Your task to perform on an android device: change text size in settings app Image 0: 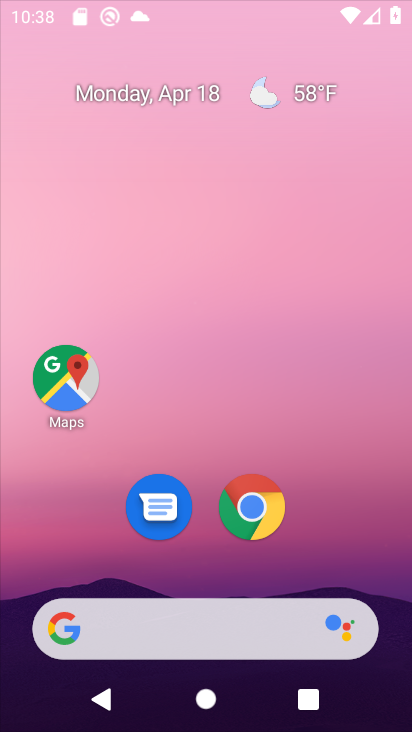
Step 0: click (208, 576)
Your task to perform on an android device: change text size in settings app Image 1: 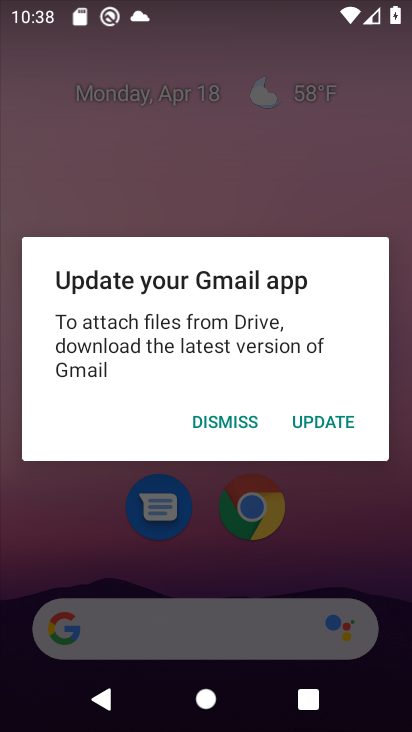
Step 1: drag from (245, 18) to (307, 496)
Your task to perform on an android device: change text size in settings app Image 2: 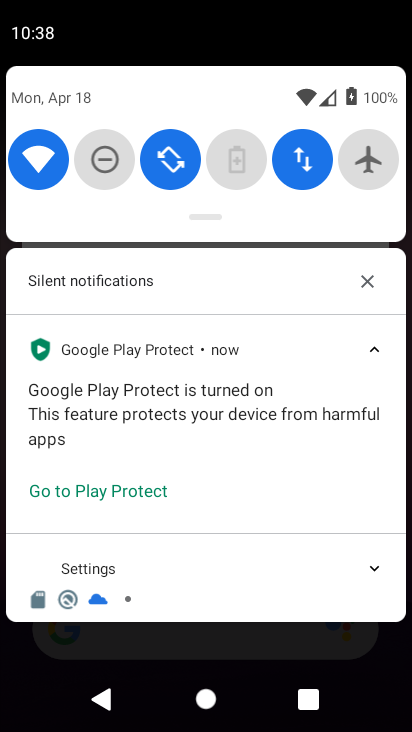
Step 2: drag from (213, 75) to (255, 730)
Your task to perform on an android device: change text size in settings app Image 3: 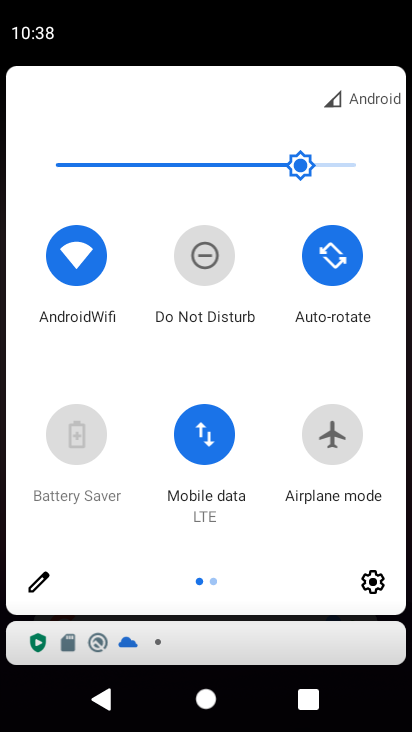
Step 3: click (362, 581)
Your task to perform on an android device: change text size in settings app Image 4: 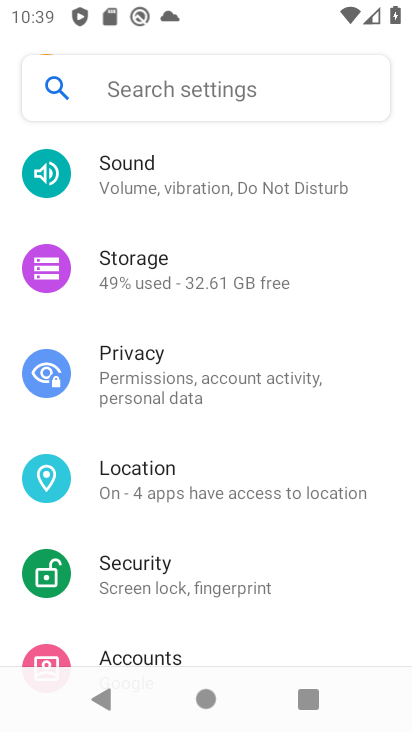
Step 4: drag from (165, 570) to (189, 196)
Your task to perform on an android device: change text size in settings app Image 5: 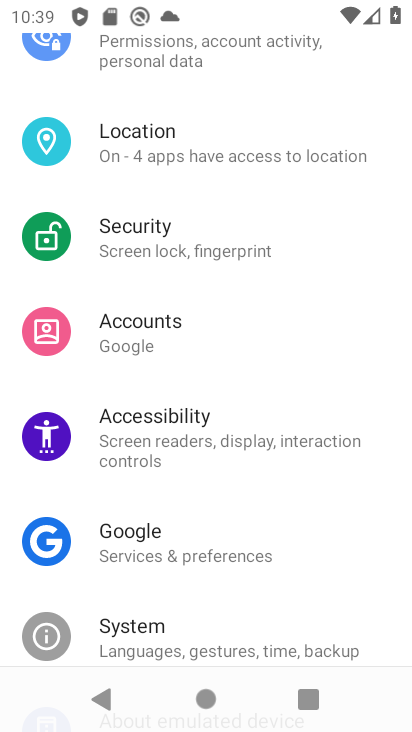
Step 5: drag from (208, 560) to (220, 212)
Your task to perform on an android device: change text size in settings app Image 6: 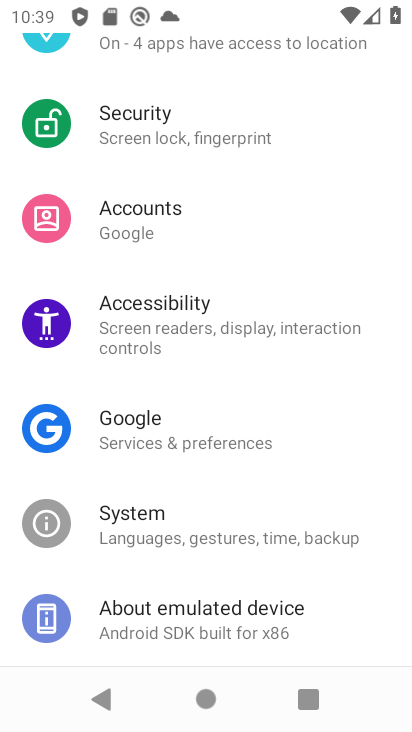
Step 6: drag from (252, 529) to (258, 209)
Your task to perform on an android device: change text size in settings app Image 7: 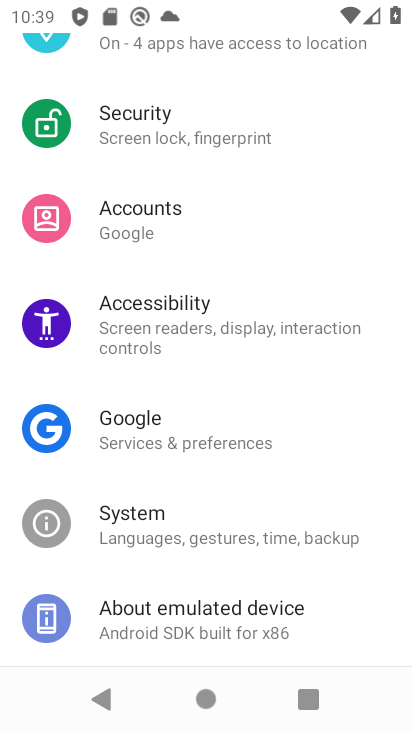
Step 7: drag from (252, 117) to (239, 524)
Your task to perform on an android device: change text size in settings app Image 8: 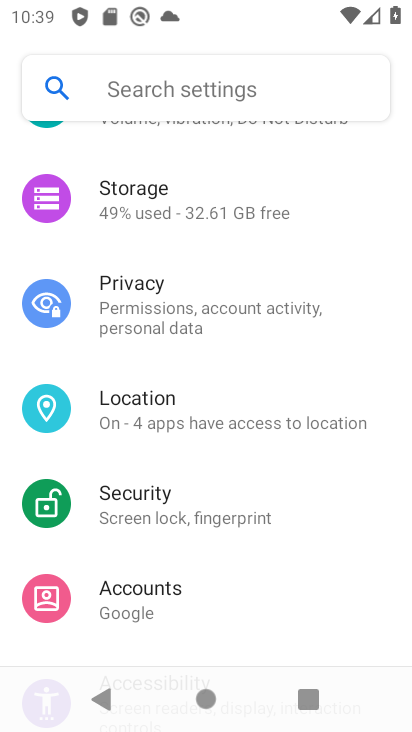
Step 8: drag from (172, 230) to (206, 633)
Your task to perform on an android device: change text size in settings app Image 9: 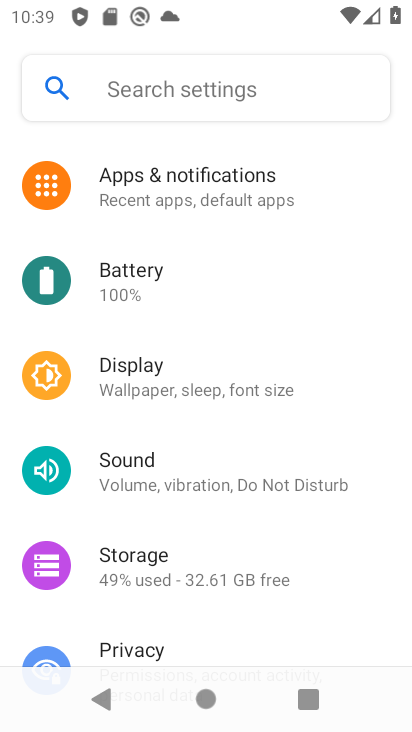
Step 9: click (131, 372)
Your task to perform on an android device: change text size in settings app Image 10: 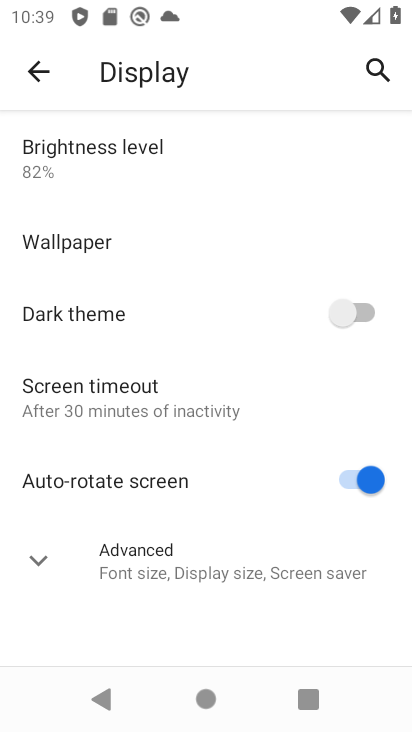
Step 10: click (225, 569)
Your task to perform on an android device: change text size in settings app Image 11: 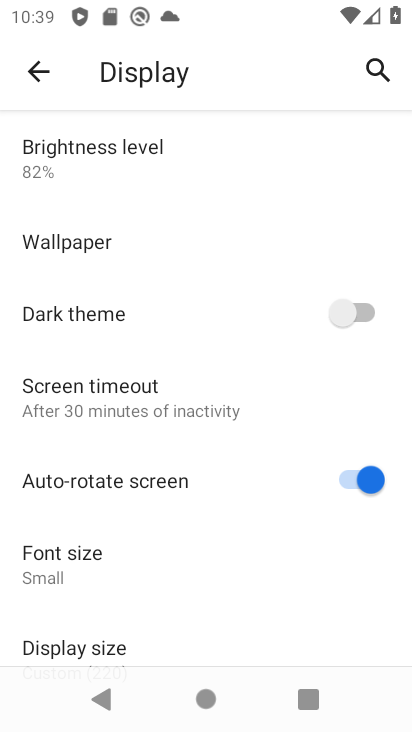
Step 11: drag from (214, 569) to (222, 256)
Your task to perform on an android device: change text size in settings app Image 12: 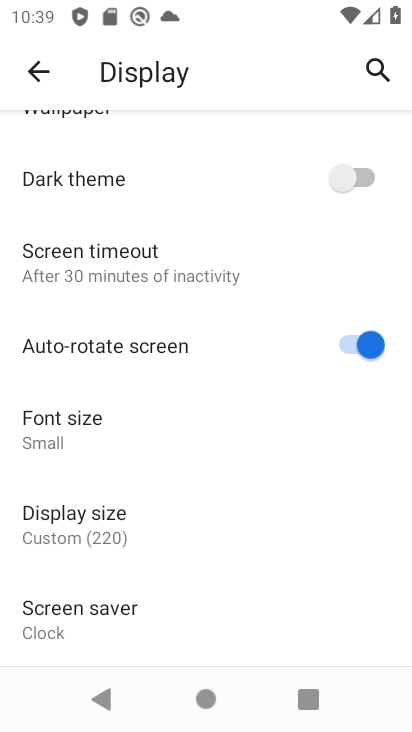
Step 12: click (137, 453)
Your task to perform on an android device: change text size in settings app Image 13: 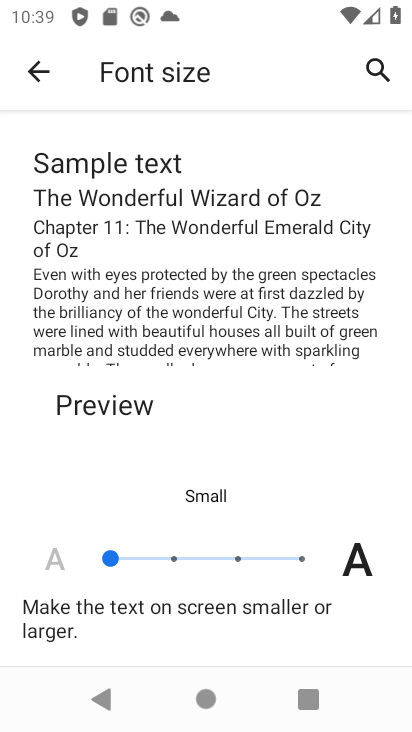
Step 13: click (174, 557)
Your task to perform on an android device: change text size in settings app Image 14: 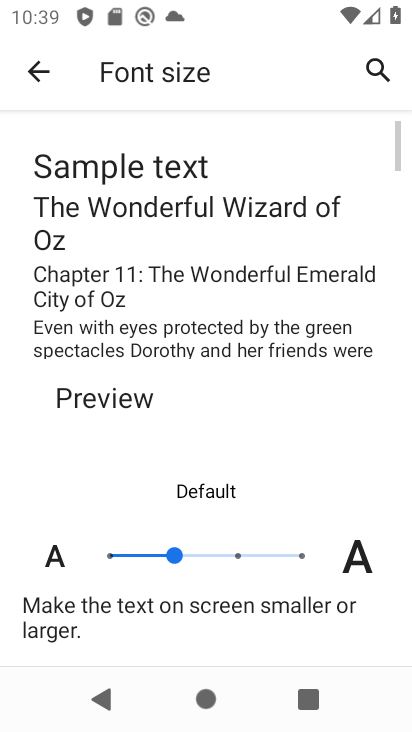
Step 14: task complete